Your task to perform on an android device: choose inbox layout in the gmail app Image 0: 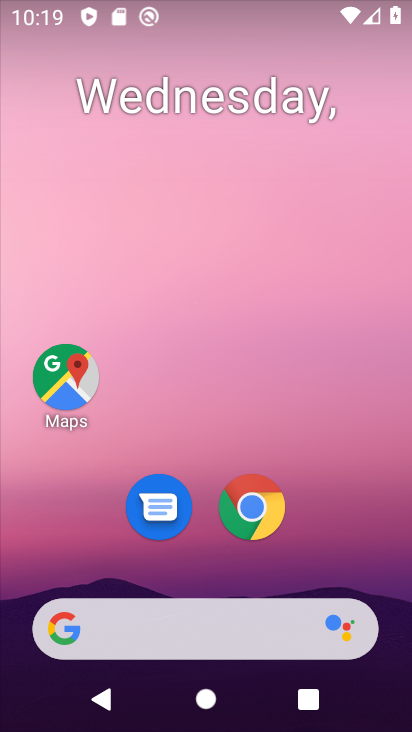
Step 0: drag from (327, 566) to (332, 208)
Your task to perform on an android device: choose inbox layout in the gmail app Image 1: 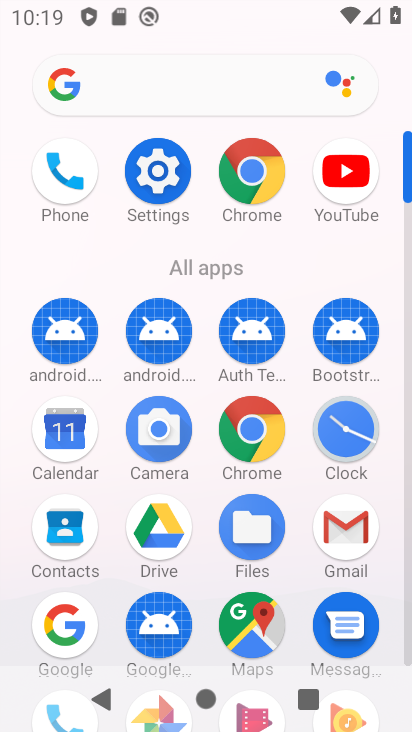
Step 1: click (351, 517)
Your task to perform on an android device: choose inbox layout in the gmail app Image 2: 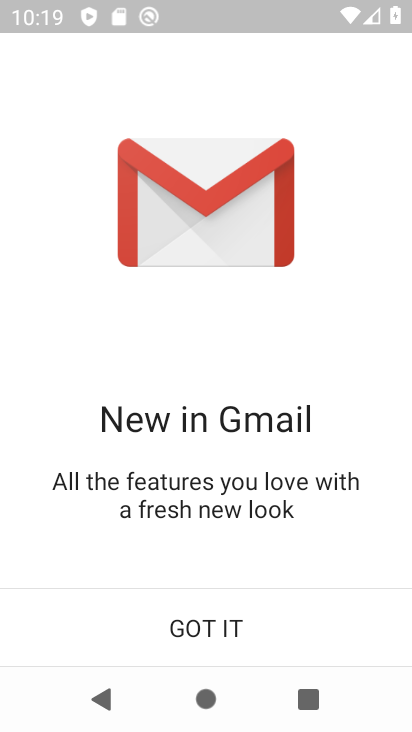
Step 2: click (207, 625)
Your task to perform on an android device: choose inbox layout in the gmail app Image 3: 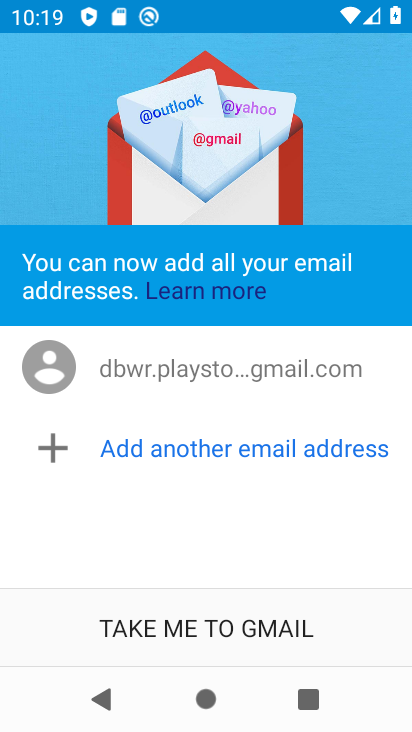
Step 3: click (207, 623)
Your task to perform on an android device: choose inbox layout in the gmail app Image 4: 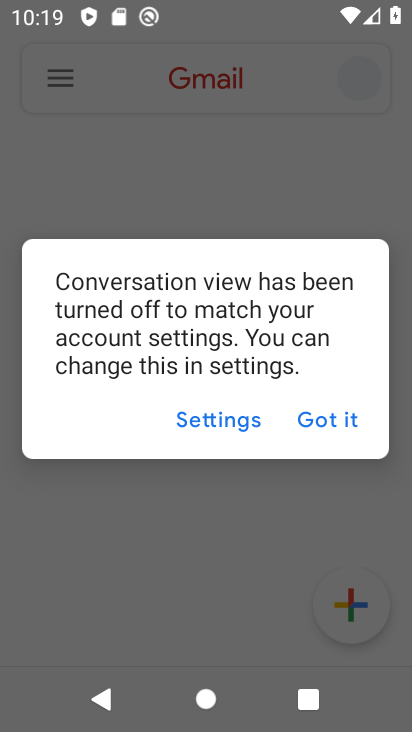
Step 4: click (53, 80)
Your task to perform on an android device: choose inbox layout in the gmail app Image 5: 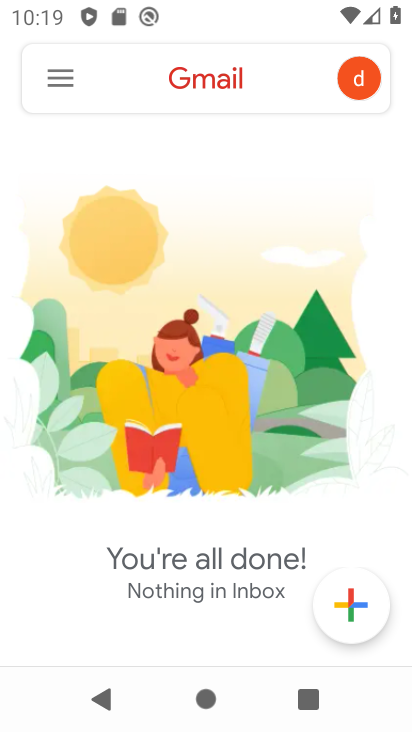
Step 5: click (305, 415)
Your task to perform on an android device: choose inbox layout in the gmail app Image 6: 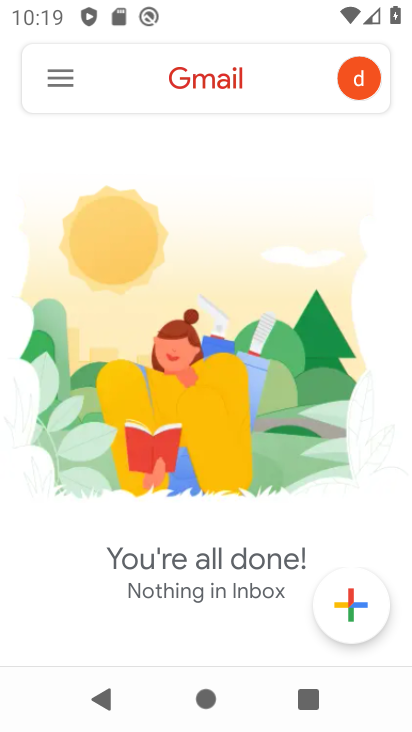
Step 6: click (42, 82)
Your task to perform on an android device: choose inbox layout in the gmail app Image 7: 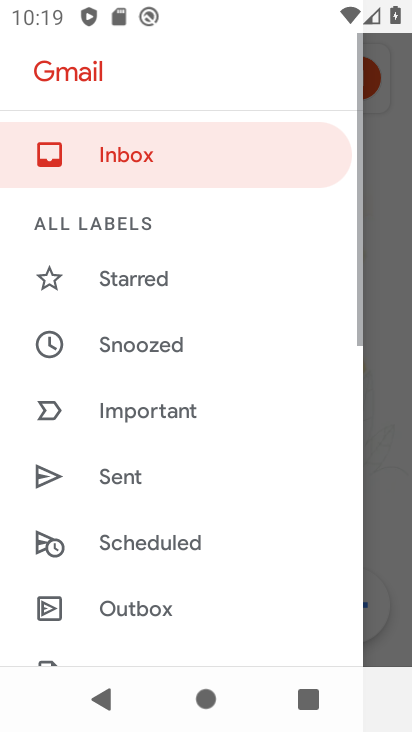
Step 7: drag from (141, 586) to (190, 187)
Your task to perform on an android device: choose inbox layout in the gmail app Image 8: 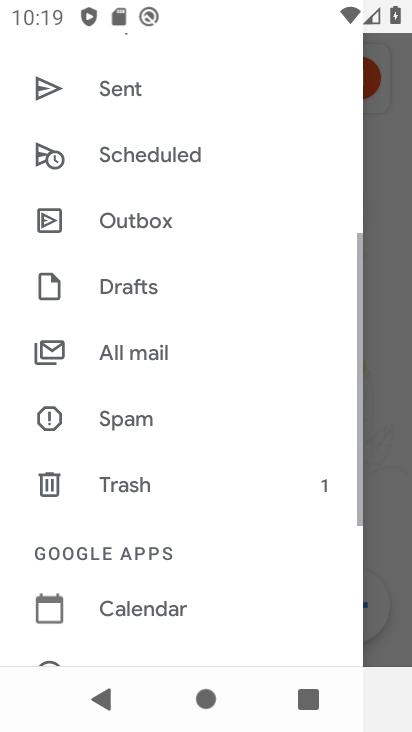
Step 8: drag from (166, 632) to (243, 108)
Your task to perform on an android device: choose inbox layout in the gmail app Image 9: 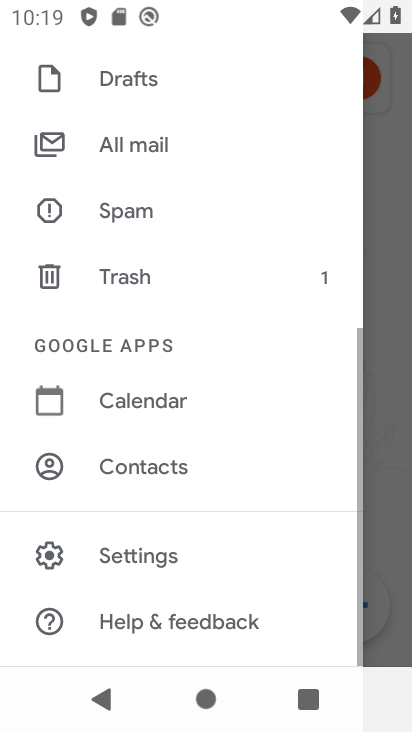
Step 9: drag from (138, 553) to (189, 307)
Your task to perform on an android device: choose inbox layout in the gmail app Image 10: 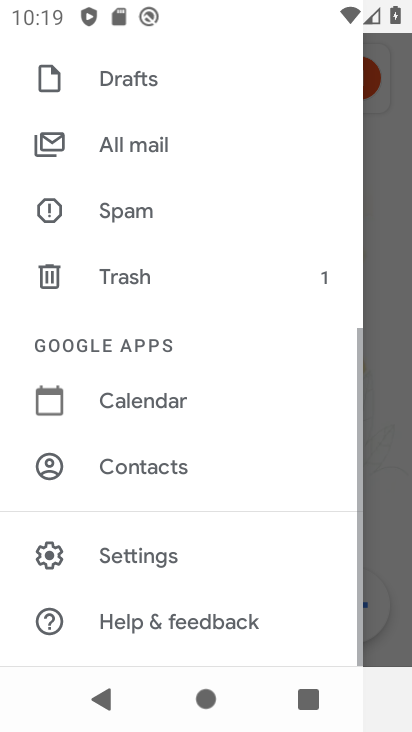
Step 10: click (126, 545)
Your task to perform on an android device: choose inbox layout in the gmail app Image 11: 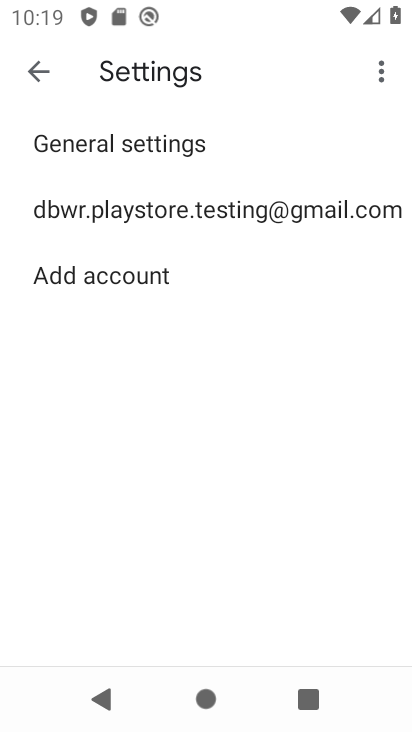
Step 11: click (113, 209)
Your task to perform on an android device: choose inbox layout in the gmail app Image 12: 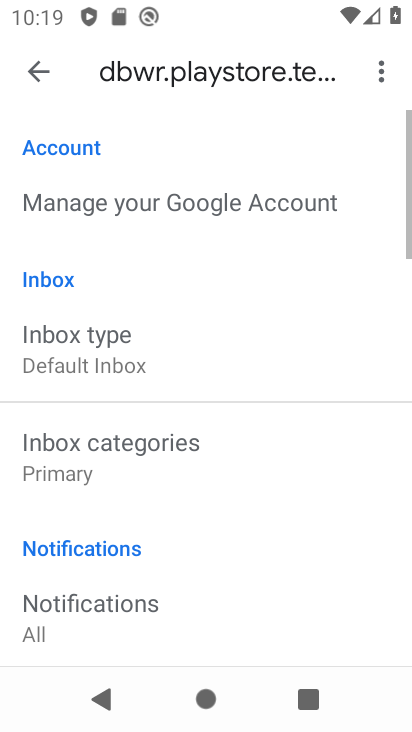
Step 12: click (94, 363)
Your task to perform on an android device: choose inbox layout in the gmail app Image 13: 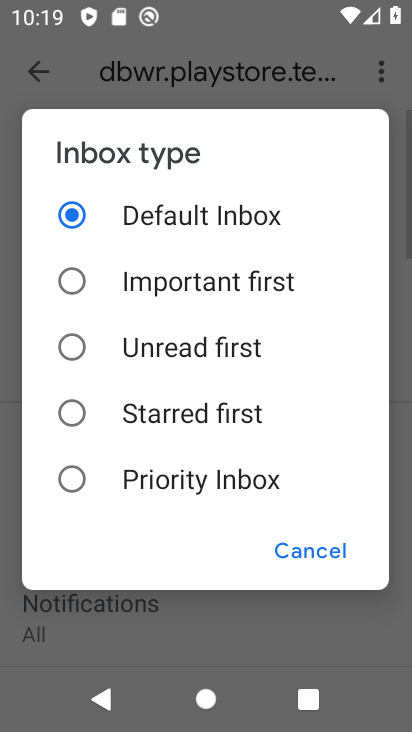
Step 13: click (170, 345)
Your task to perform on an android device: choose inbox layout in the gmail app Image 14: 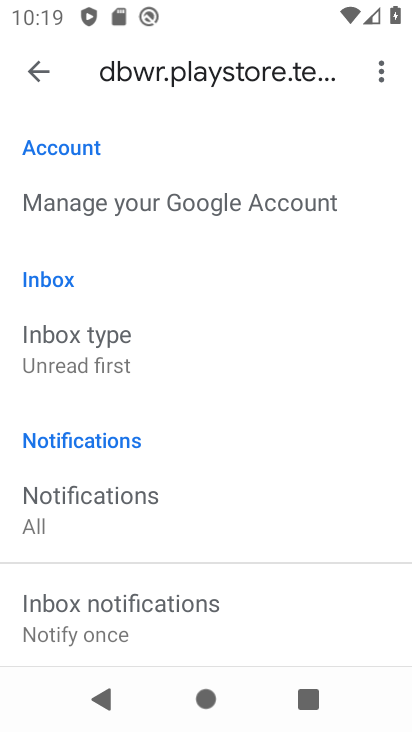
Step 14: task complete